Your task to perform on an android device: Open calendar and show me the third week of next month Image 0: 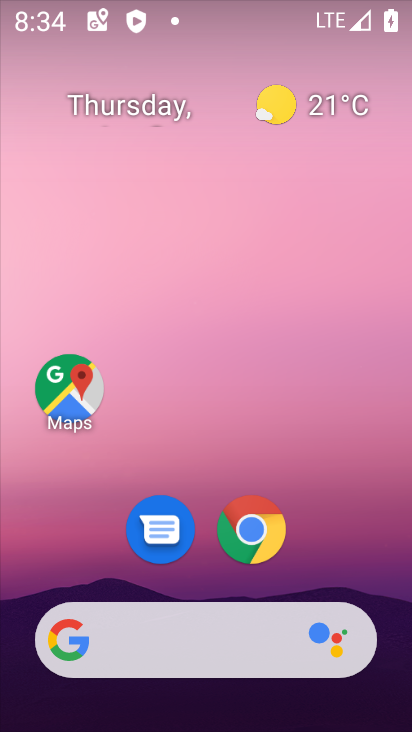
Step 0: drag from (187, 692) to (219, 42)
Your task to perform on an android device: Open calendar and show me the third week of next month Image 1: 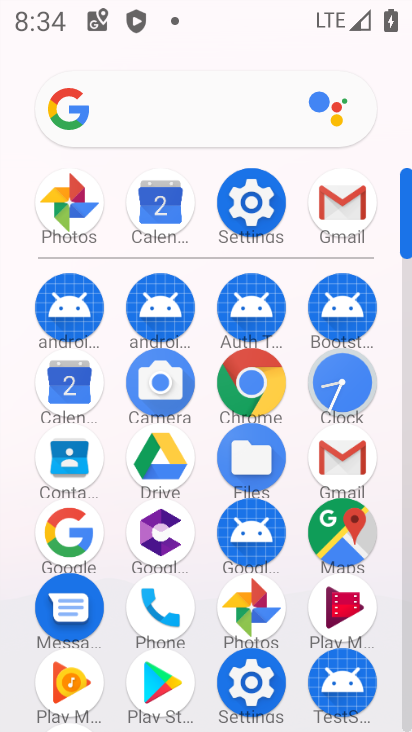
Step 1: click (67, 388)
Your task to perform on an android device: Open calendar and show me the third week of next month Image 2: 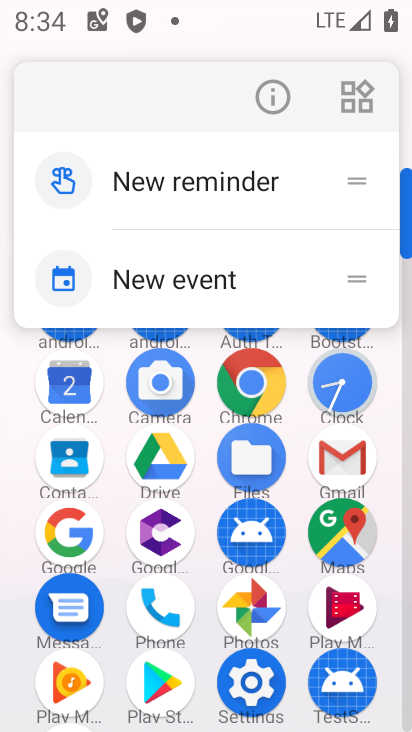
Step 2: click (67, 388)
Your task to perform on an android device: Open calendar and show me the third week of next month Image 3: 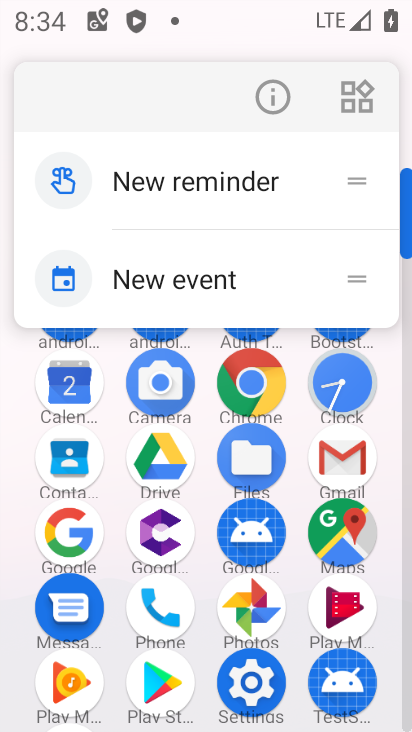
Step 3: click (67, 388)
Your task to perform on an android device: Open calendar and show me the third week of next month Image 4: 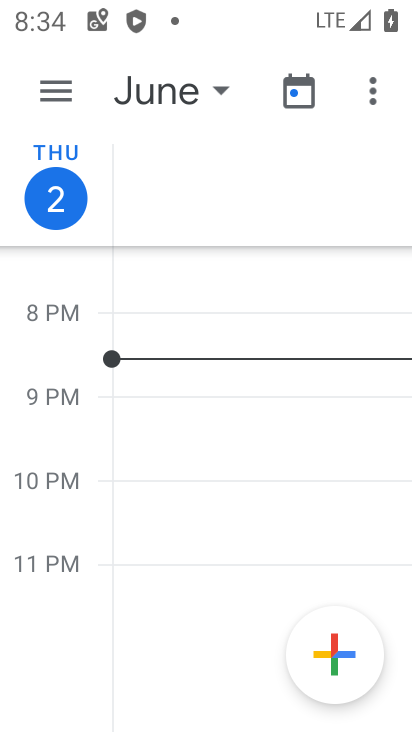
Step 4: click (176, 84)
Your task to perform on an android device: Open calendar and show me the third week of next month Image 5: 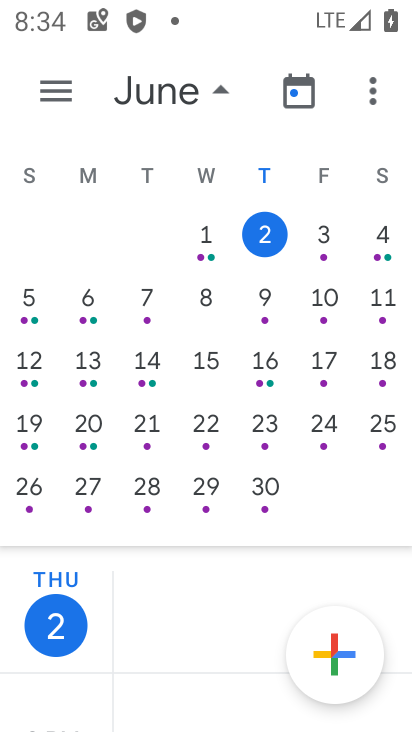
Step 5: drag from (350, 381) to (68, 436)
Your task to perform on an android device: Open calendar and show me the third week of next month Image 6: 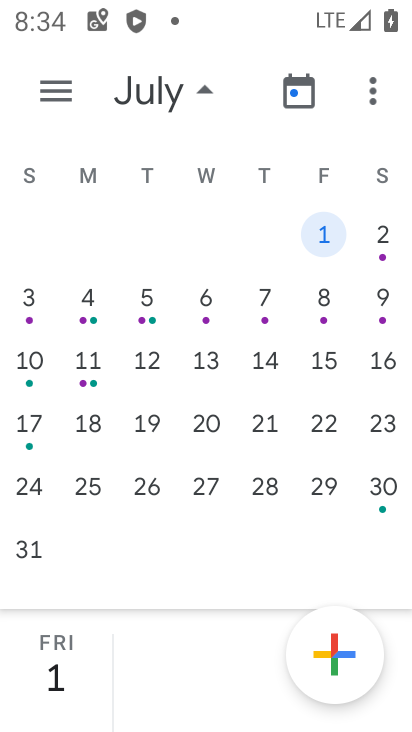
Step 6: click (32, 365)
Your task to perform on an android device: Open calendar and show me the third week of next month Image 7: 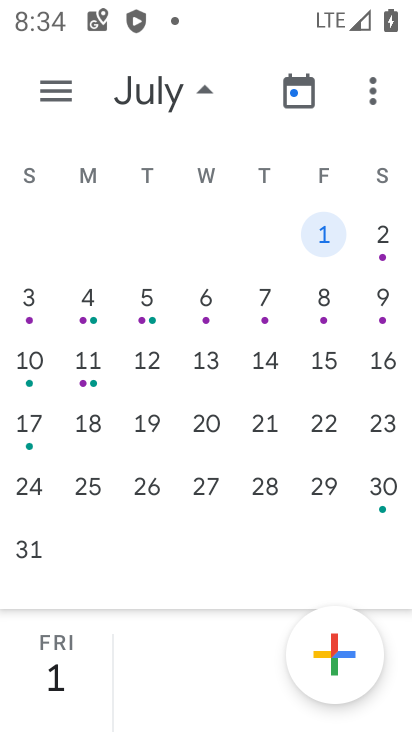
Step 7: click (32, 364)
Your task to perform on an android device: Open calendar and show me the third week of next month Image 8: 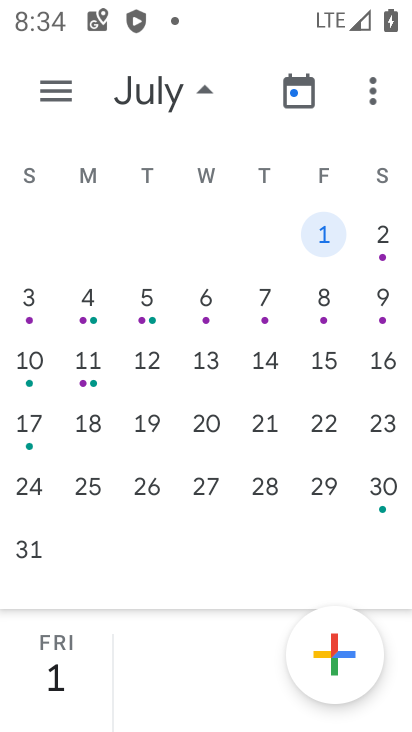
Step 8: click (35, 358)
Your task to perform on an android device: Open calendar and show me the third week of next month Image 9: 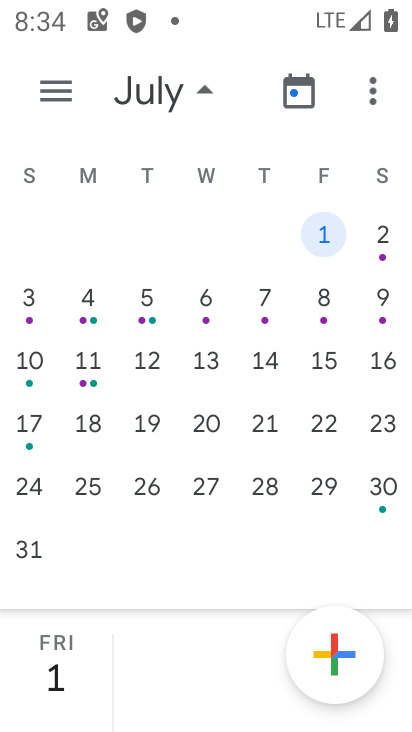
Step 9: click (19, 370)
Your task to perform on an android device: Open calendar and show me the third week of next month Image 10: 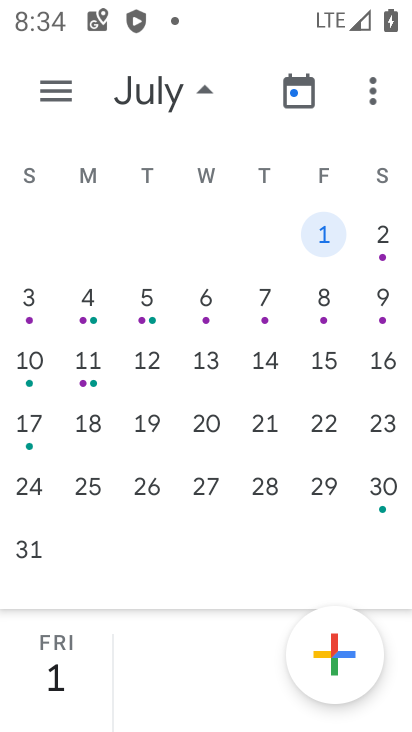
Step 10: click (25, 362)
Your task to perform on an android device: Open calendar and show me the third week of next month Image 11: 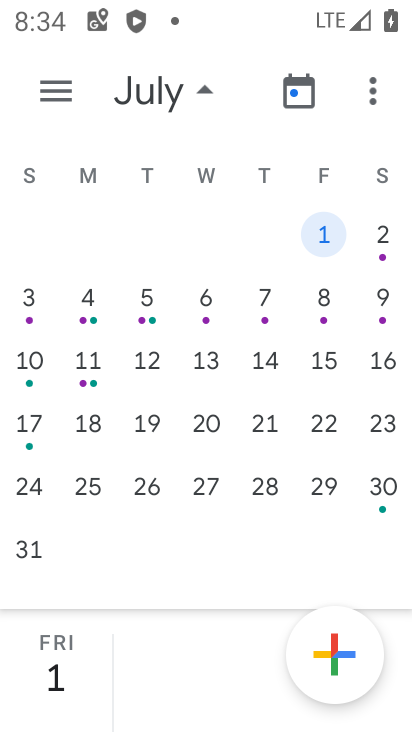
Step 11: click (30, 358)
Your task to perform on an android device: Open calendar and show me the third week of next month Image 12: 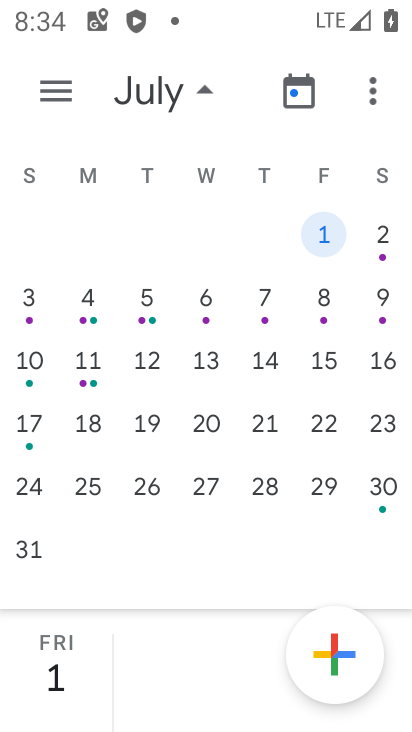
Step 12: click (29, 371)
Your task to perform on an android device: Open calendar and show me the third week of next month Image 13: 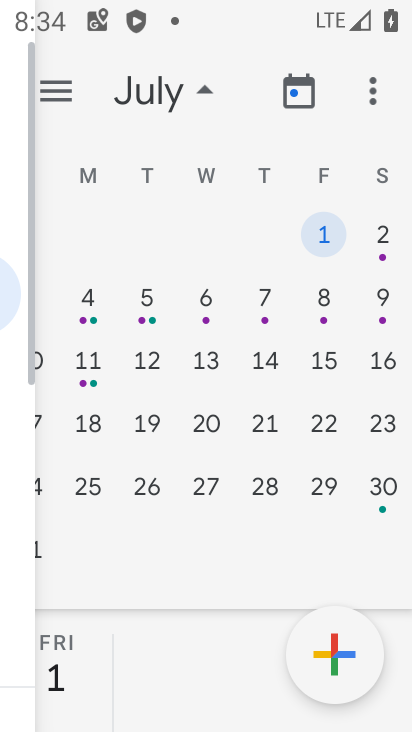
Step 13: click (20, 362)
Your task to perform on an android device: Open calendar and show me the third week of next month Image 14: 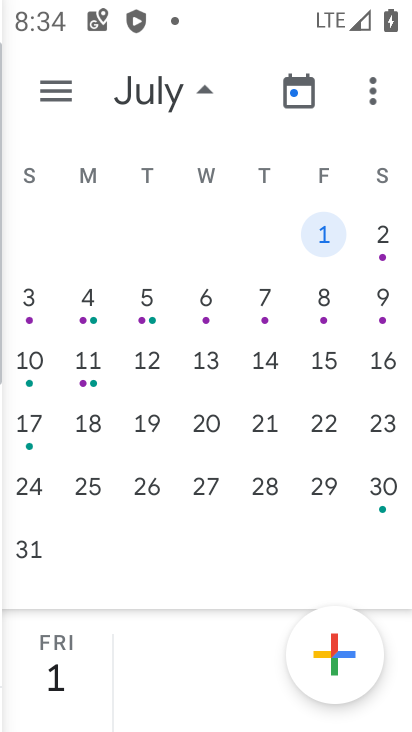
Step 14: click (20, 362)
Your task to perform on an android device: Open calendar and show me the third week of next month Image 15: 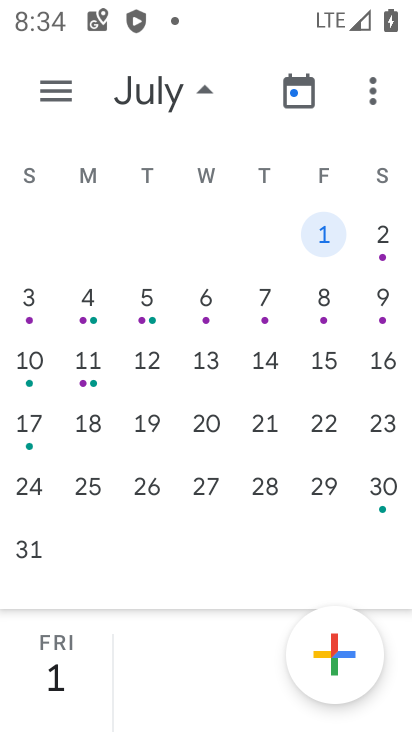
Step 15: click (37, 358)
Your task to perform on an android device: Open calendar and show me the third week of next month Image 16: 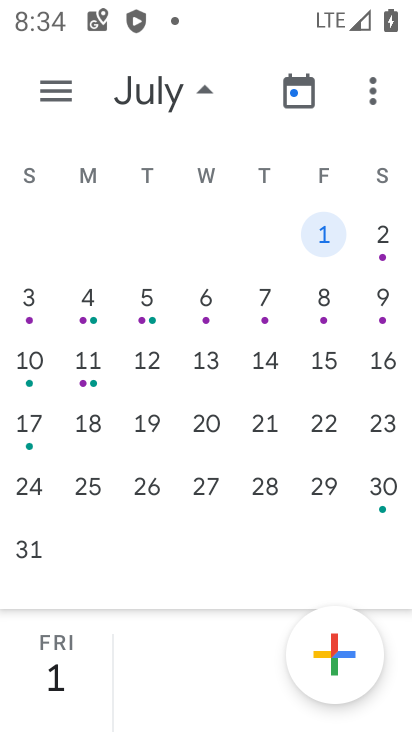
Step 16: click (37, 358)
Your task to perform on an android device: Open calendar and show me the third week of next month Image 17: 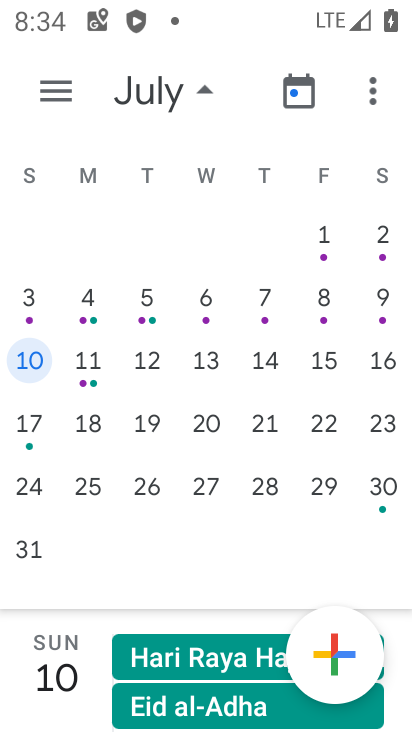
Step 17: task complete